Your task to perform on an android device: open the mobile data screen to see how much data has been used Image 0: 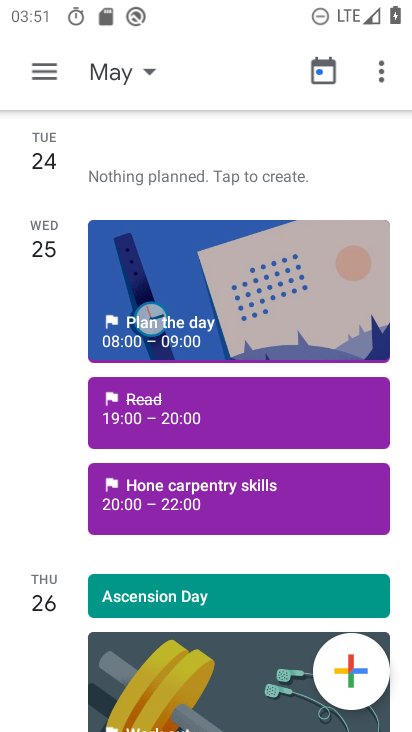
Step 0: press home button
Your task to perform on an android device: open the mobile data screen to see how much data has been used Image 1: 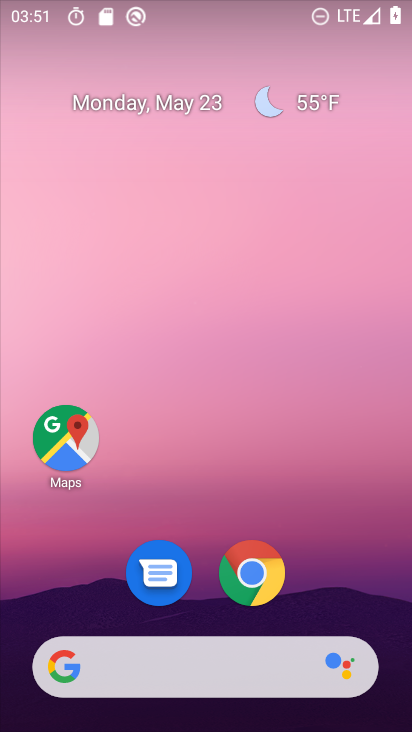
Step 1: drag from (333, 591) to (312, 50)
Your task to perform on an android device: open the mobile data screen to see how much data has been used Image 2: 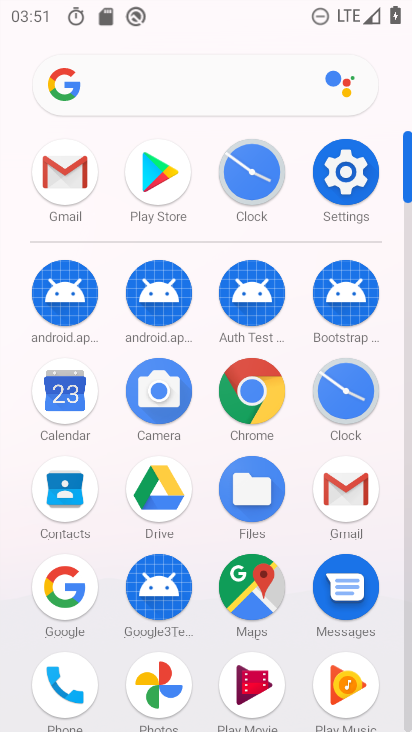
Step 2: click (340, 170)
Your task to perform on an android device: open the mobile data screen to see how much data has been used Image 3: 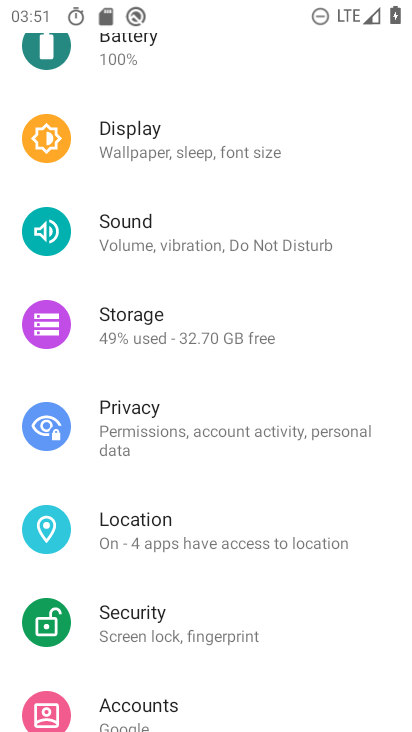
Step 3: drag from (365, 219) to (278, 694)
Your task to perform on an android device: open the mobile data screen to see how much data has been used Image 4: 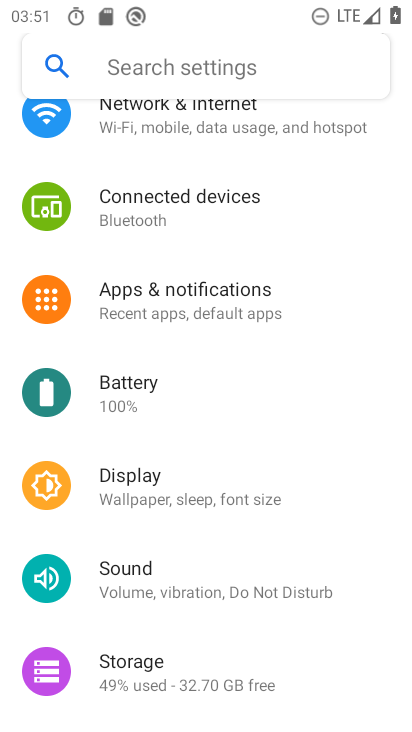
Step 4: click (235, 121)
Your task to perform on an android device: open the mobile data screen to see how much data has been used Image 5: 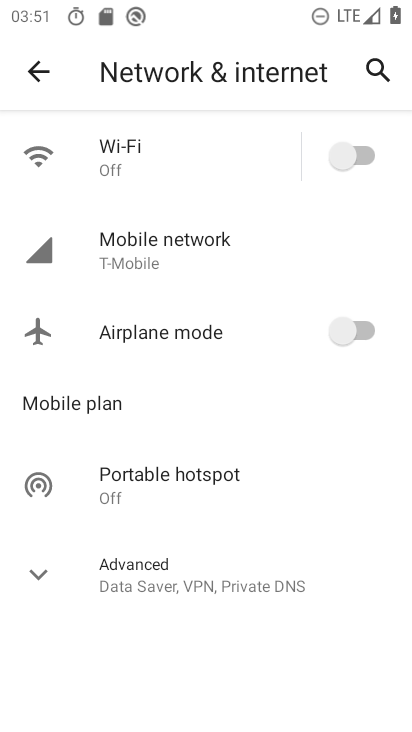
Step 5: click (160, 260)
Your task to perform on an android device: open the mobile data screen to see how much data has been used Image 6: 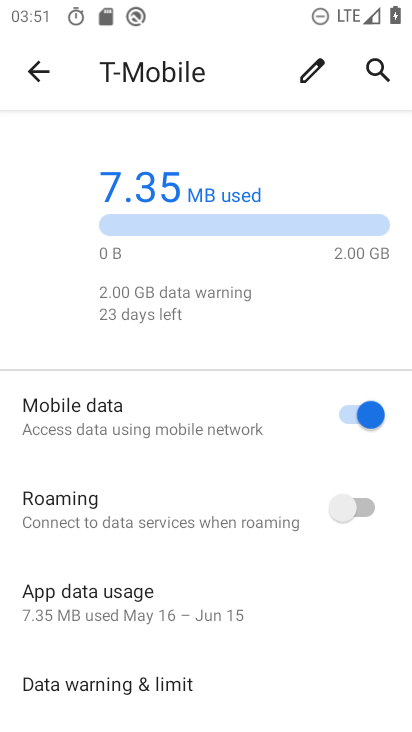
Step 6: click (100, 617)
Your task to perform on an android device: open the mobile data screen to see how much data has been used Image 7: 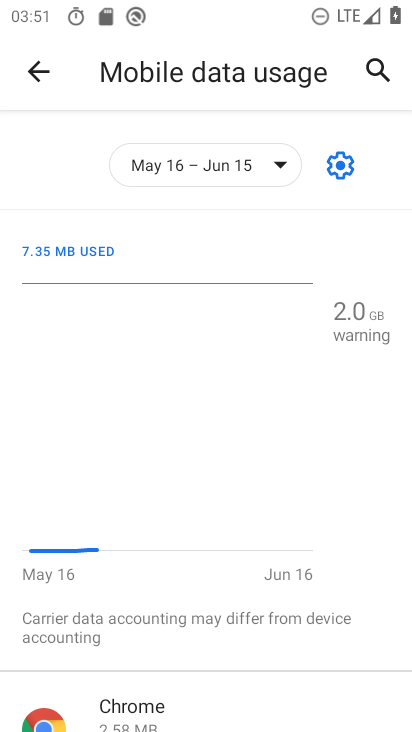
Step 7: task complete